Your task to perform on an android device: turn notification dots off Image 0: 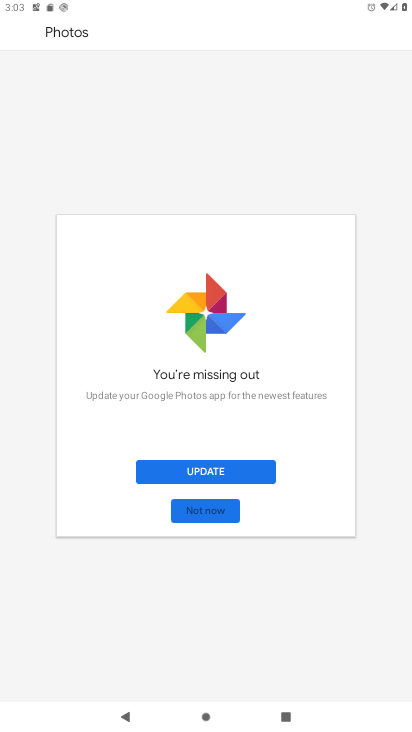
Step 0: press home button
Your task to perform on an android device: turn notification dots off Image 1: 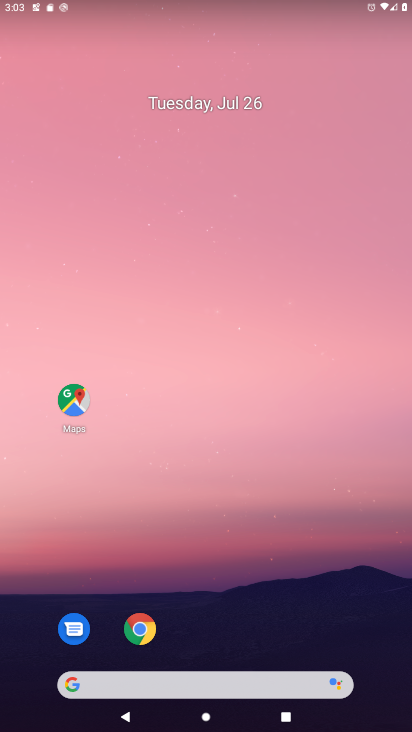
Step 1: drag from (182, 639) to (133, 87)
Your task to perform on an android device: turn notification dots off Image 2: 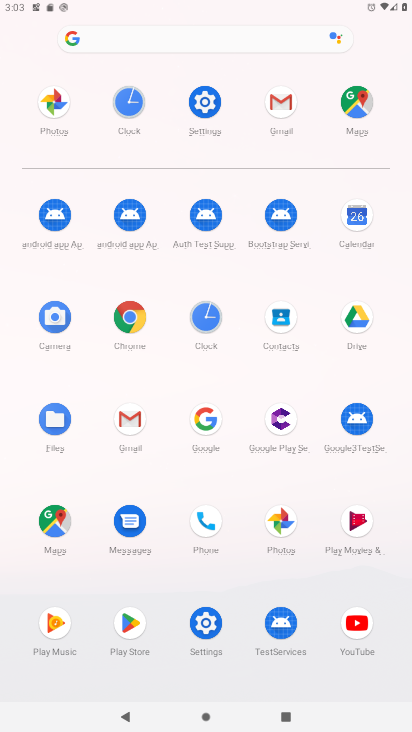
Step 2: click (220, 107)
Your task to perform on an android device: turn notification dots off Image 3: 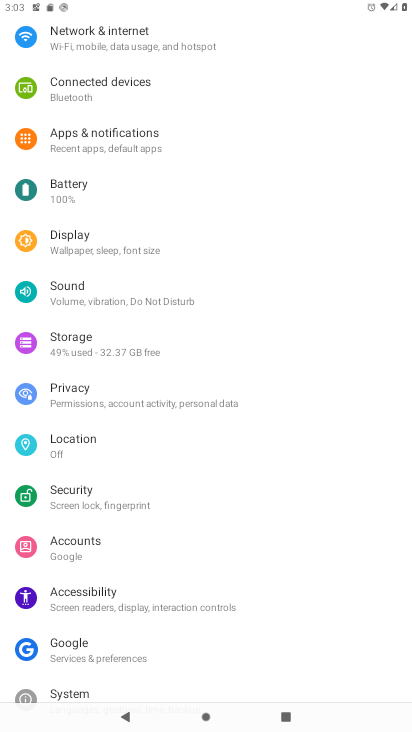
Step 3: click (183, 129)
Your task to perform on an android device: turn notification dots off Image 4: 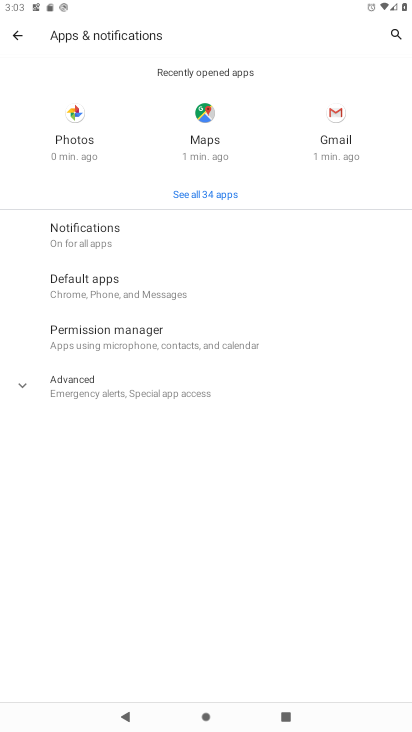
Step 4: click (78, 241)
Your task to perform on an android device: turn notification dots off Image 5: 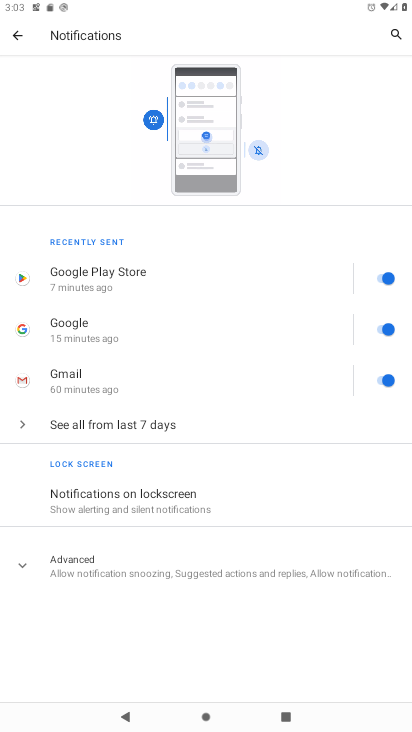
Step 5: click (103, 550)
Your task to perform on an android device: turn notification dots off Image 6: 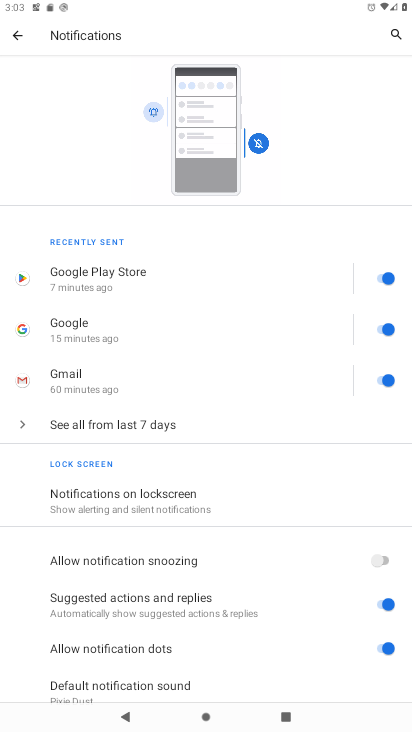
Step 6: drag from (163, 615) to (163, 320)
Your task to perform on an android device: turn notification dots off Image 7: 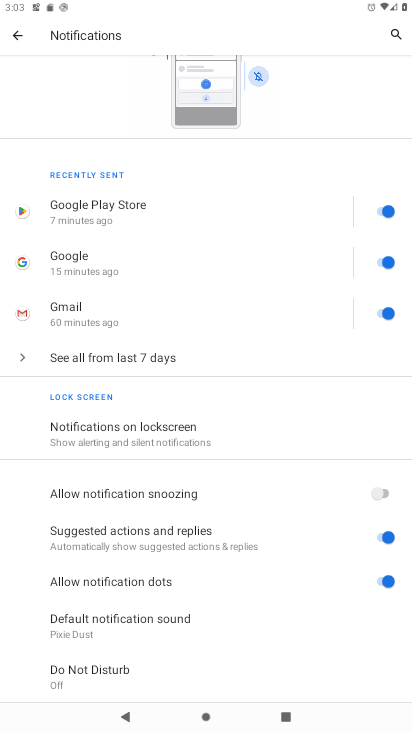
Step 7: click (380, 580)
Your task to perform on an android device: turn notification dots off Image 8: 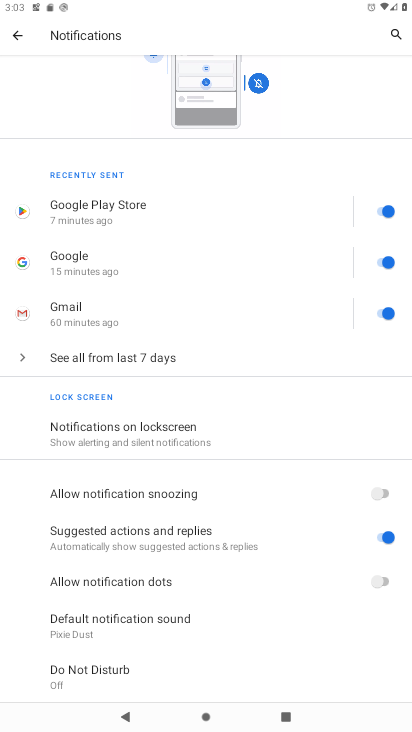
Step 8: task complete